Your task to perform on an android device: manage bookmarks in the chrome app Image 0: 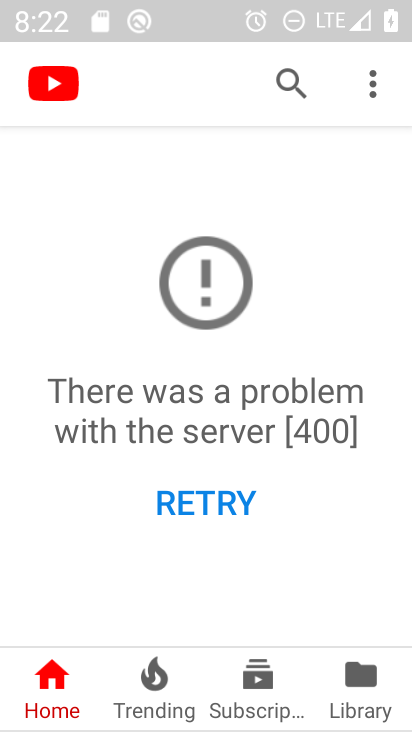
Step 0: press back button
Your task to perform on an android device: manage bookmarks in the chrome app Image 1: 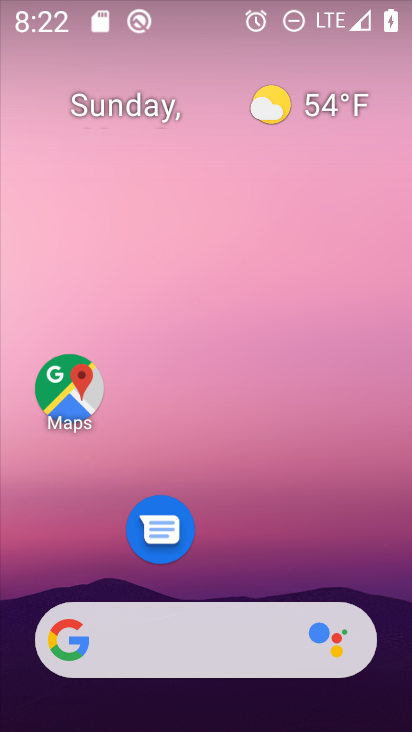
Step 1: drag from (224, 552) to (331, 7)
Your task to perform on an android device: manage bookmarks in the chrome app Image 2: 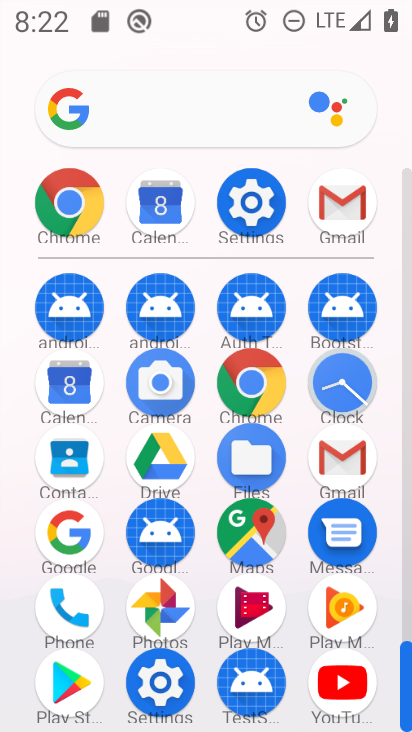
Step 2: drag from (60, 213) to (214, 442)
Your task to perform on an android device: manage bookmarks in the chrome app Image 3: 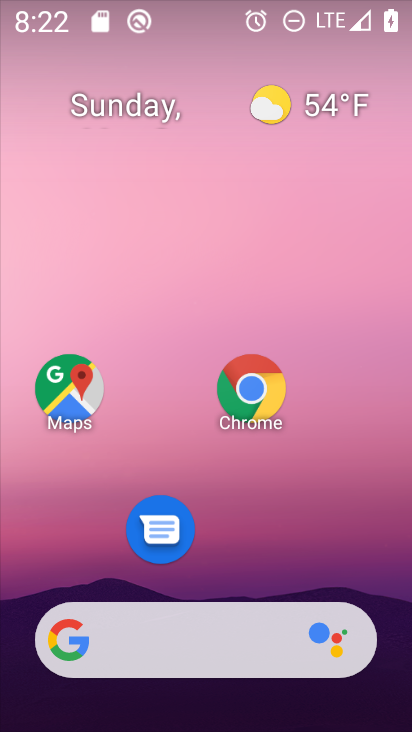
Step 3: click (262, 405)
Your task to perform on an android device: manage bookmarks in the chrome app Image 4: 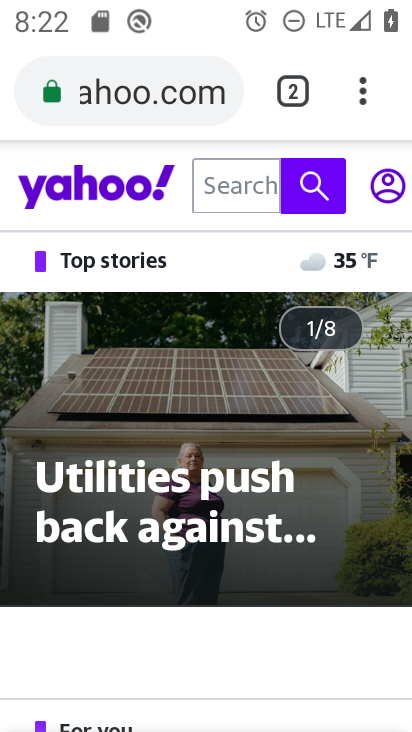
Step 4: click (349, 97)
Your task to perform on an android device: manage bookmarks in the chrome app Image 5: 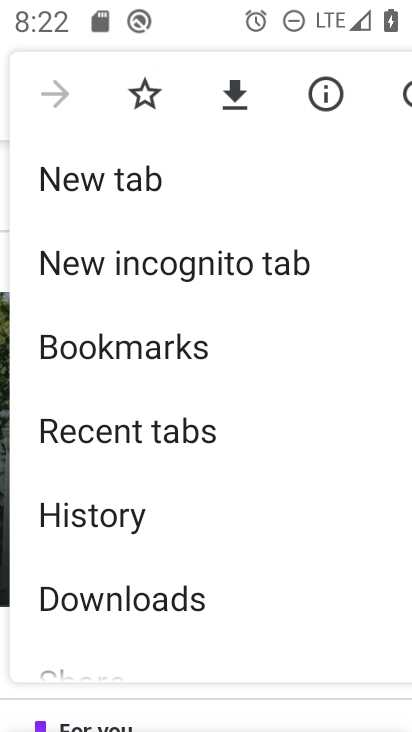
Step 5: click (151, 359)
Your task to perform on an android device: manage bookmarks in the chrome app Image 6: 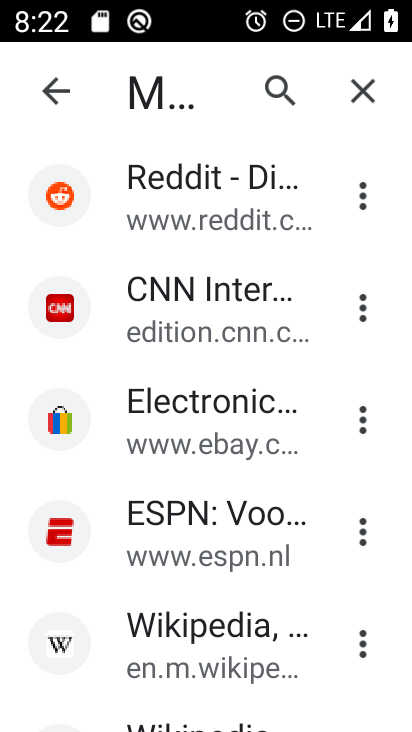
Step 6: click (359, 195)
Your task to perform on an android device: manage bookmarks in the chrome app Image 7: 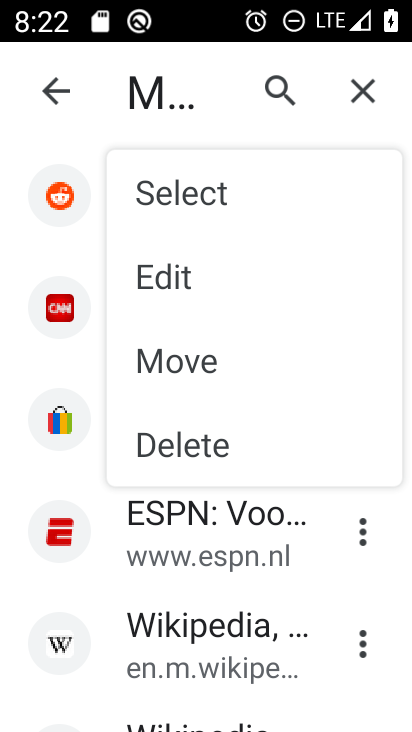
Step 7: click (203, 192)
Your task to perform on an android device: manage bookmarks in the chrome app Image 8: 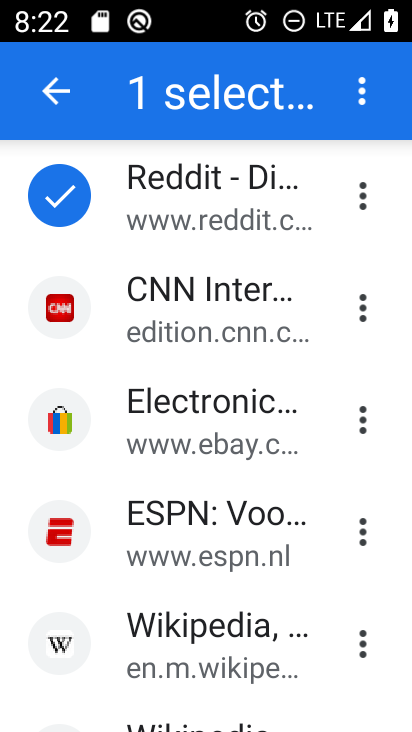
Step 8: click (192, 332)
Your task to perform on an android device: manage bookmarks in the chrome app Image 9: 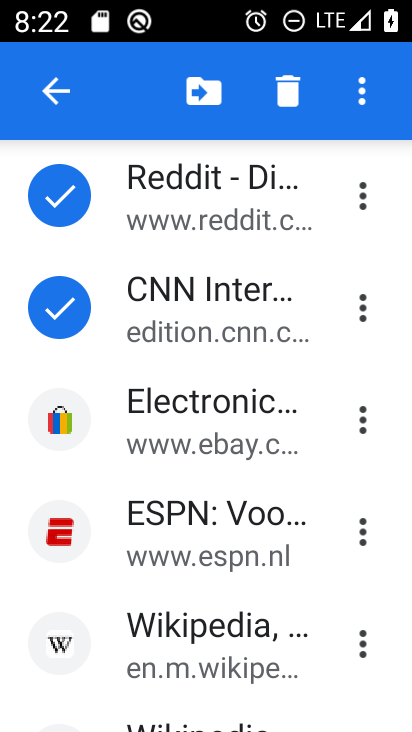
Step 9: click (178, 406)
Your task to perform on an android device: manage bookmarks in the chrome app Image 10: 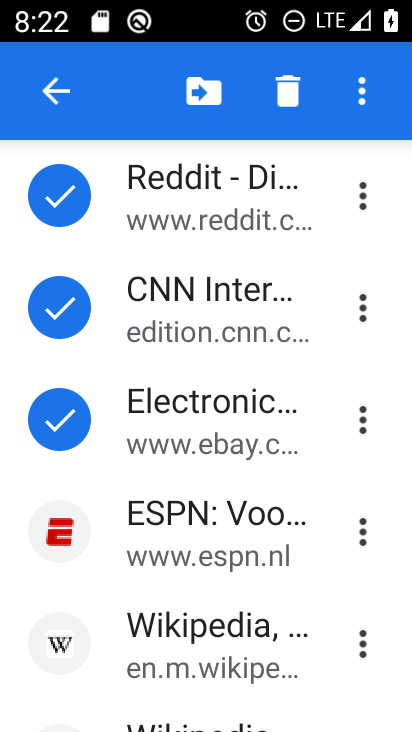
Step 10: click (162, 525)
Your task to perform on an android device: manage bookmarks in the chrome app Image 11: 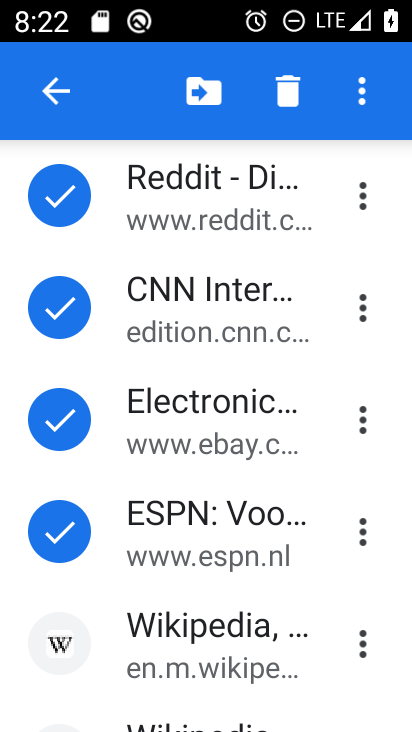
Step 11: click (128, 635)
Your task to perform on an android device: manage bookmarks in the chrome app Image 12: 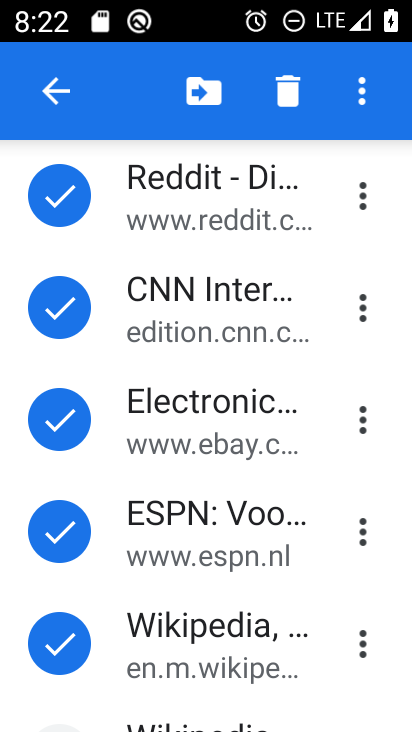
Step 12: drag from (128, 634) to (224, 43)
Your task to perform on an android device: manage bookmarks in the chrome app Image 13: 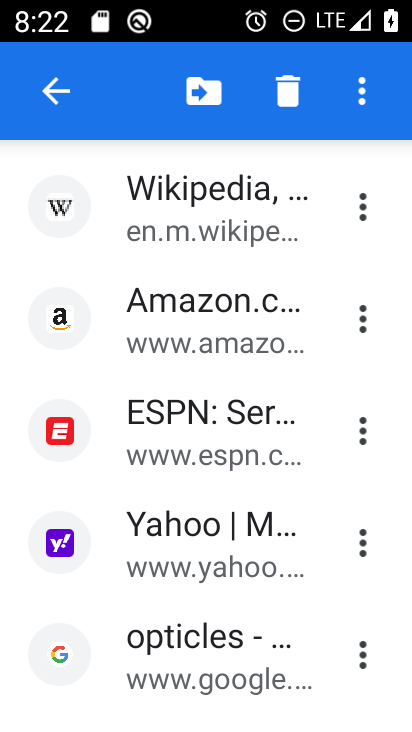
Step 13: click (171, 209)
Your task to perform on an android device: manage bookmarks in the chrome app Image 14: 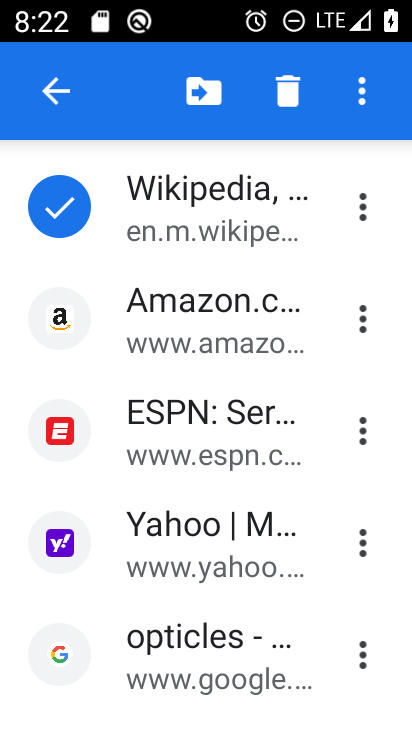
Step 14: click (152, 327)
Your task to perform on an android device: manage bookmarks in the chrome app Image 15: 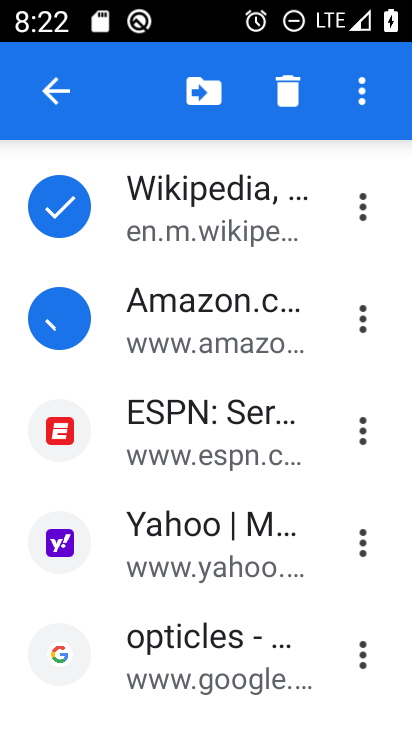
Step 15: click (132, 429)
Your task to perform on an android device: manage bookmarks in the chrome app Image 16: 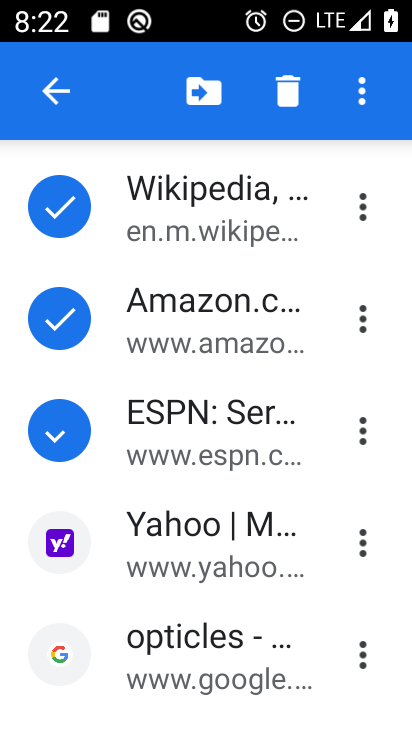
Step 16: click (157, 520)
Your task to perform on an android device: manage bookmarks in the chrome app Image 17: 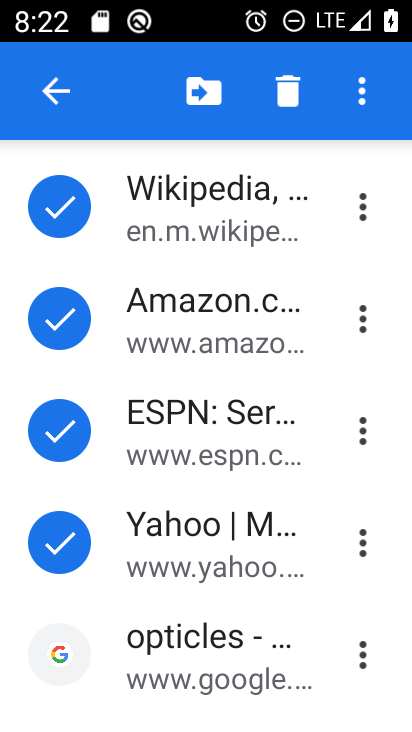
Step 17: click (155, 618)
Your task to perform on an android device: manage bookmarks in the chrome app Image 18: 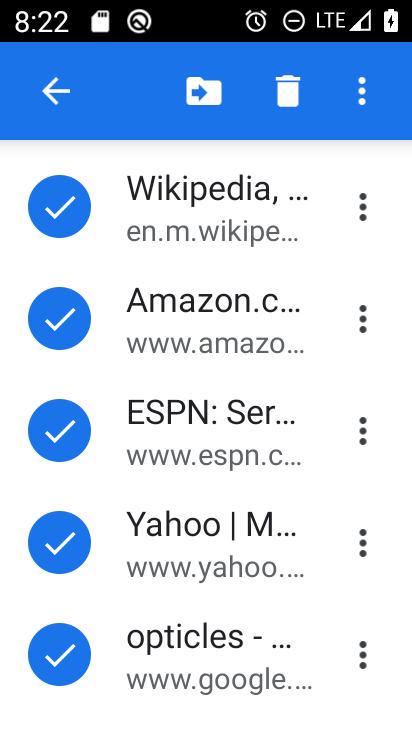
Step 18: click (188, 97)
Your task to perform on an android device: manage bookmarks in the chrome app Image 19: 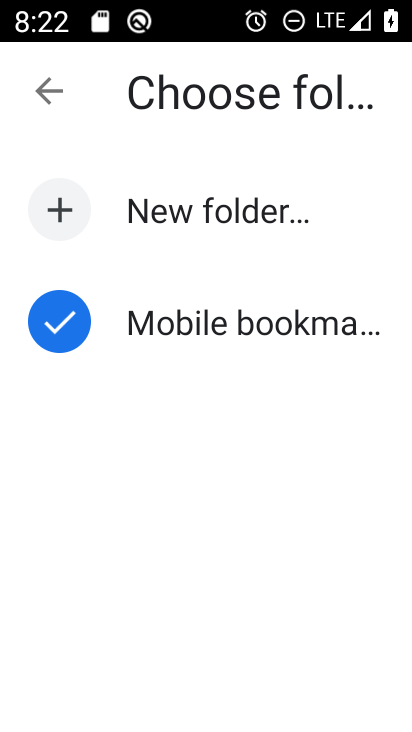
Step 19: click (224, 224)
Your task to perform on an android device: manage bookmarks in the chrome app Image 20: 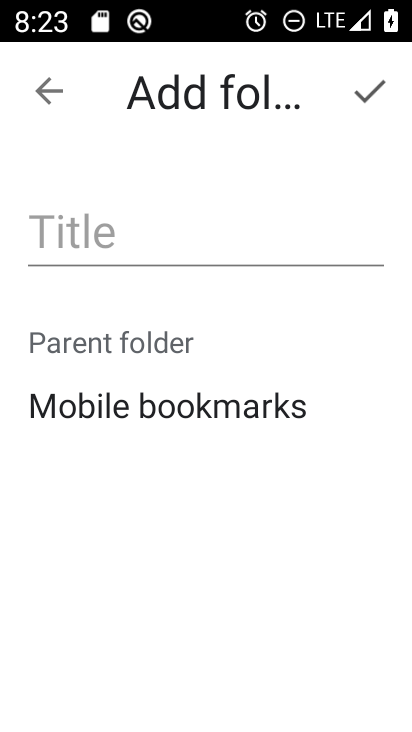
Step 20: click (197, 255)
Your task to perform on an android device: manage bookmarks in the chrome app Image 21: 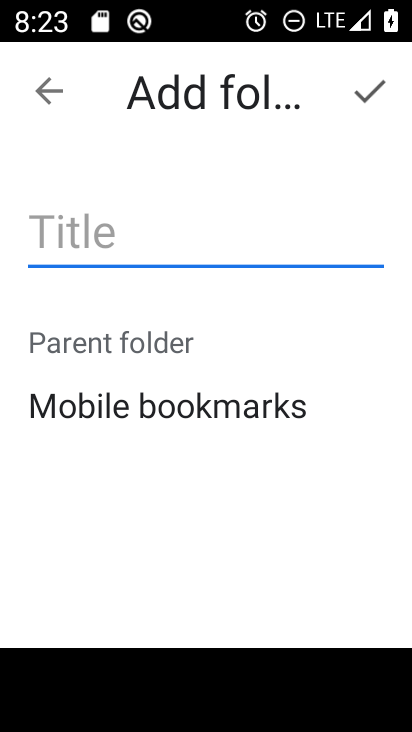
Step 21: type "BBM"
Your task to perform on an android device: manage bookmarks in the chrome app Image 22: 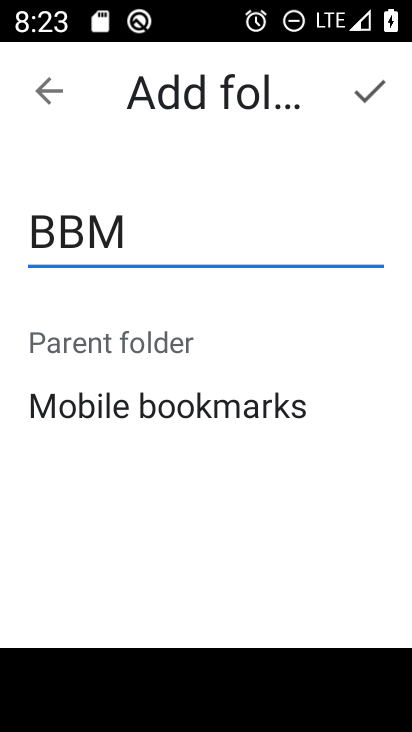
Step 22: click (374, 98)
Your task to perform on an android device: manage bookmarks in the chrome app Image 23: 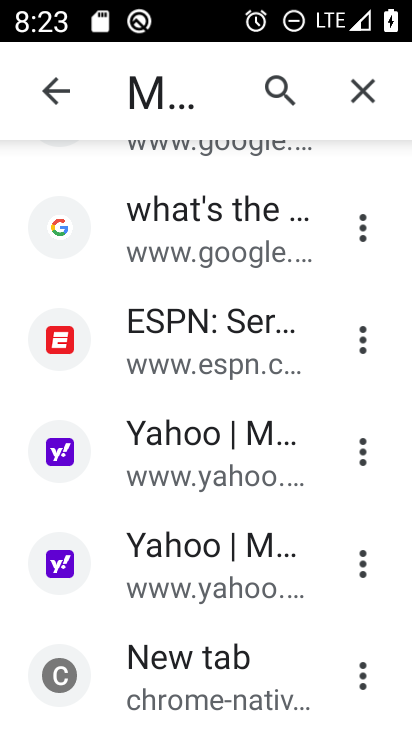
Step 23: task complete